Your task to perform on an android device: Go to Reddit.com Image 0: 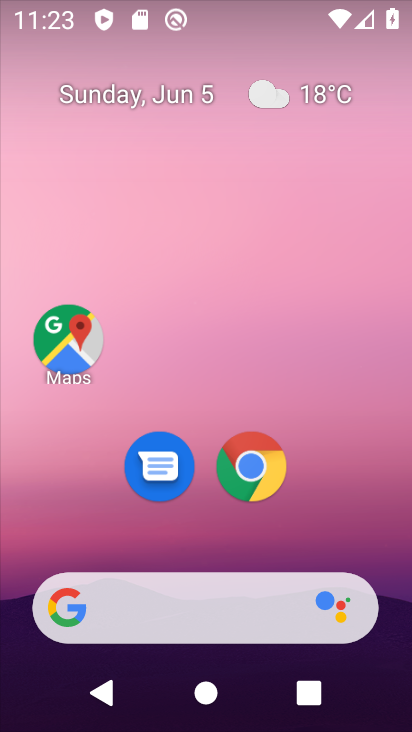
Step 0: drag from (339, 511) to (323, 183)
Your task to perform on an android device: Go to Reddit.com Image 1: 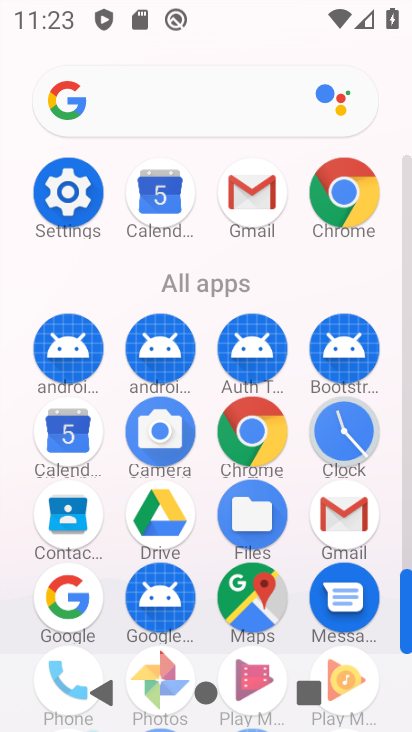
Step 1: click (248, 420)
Your task to perform on an android device: Go to Reddit.com Image 2: 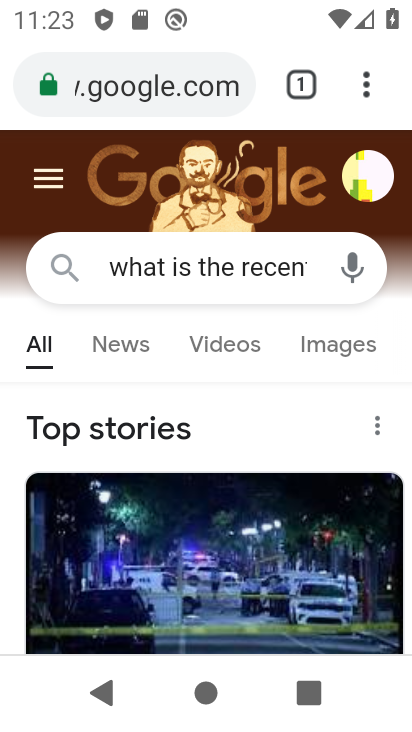
Step 2: click (185, 84)
Your task to perform on an android device: Go to Reddit.com Image 3: 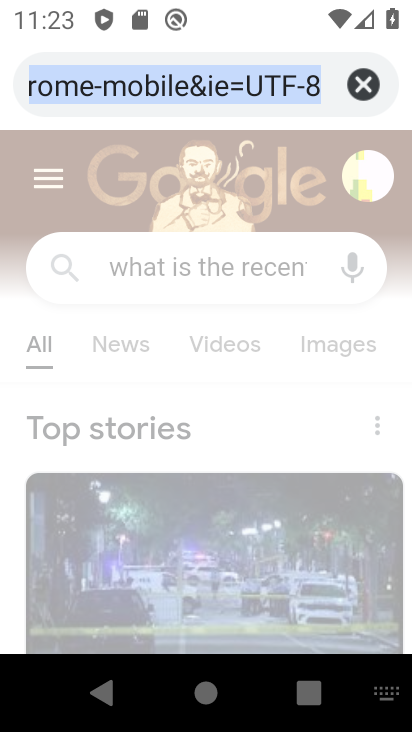
Step 3: click (370, 78)
Your task to perform on an android device: Go to Reddit.com Image 4: 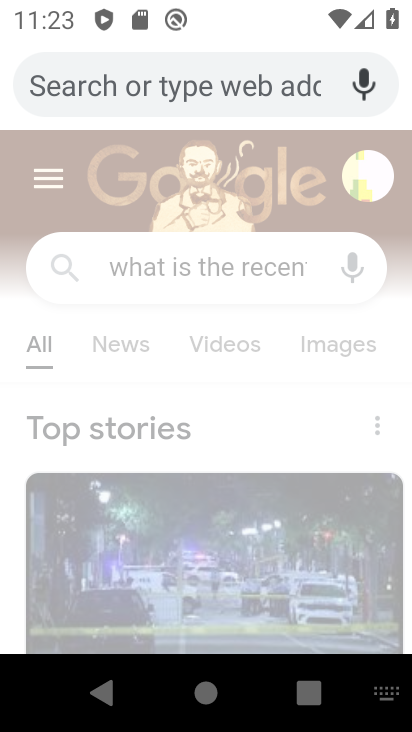
Step 4: type "reddit .com"
Your task to perform on an android device: Go to Reddit.com Image 5: 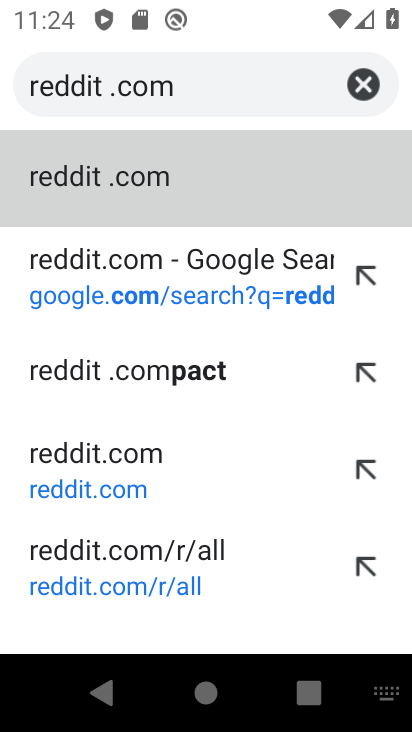
Step 5: click (126, 182)
Your task to perform on an android device: Go to Reddit.com Image 6: 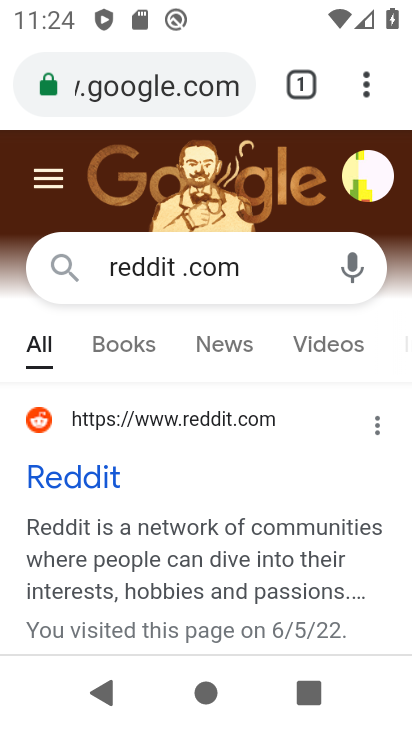
Step 6: click (111, 476)
Your task to perform on an android device: Go to Reddit.com Image 7: 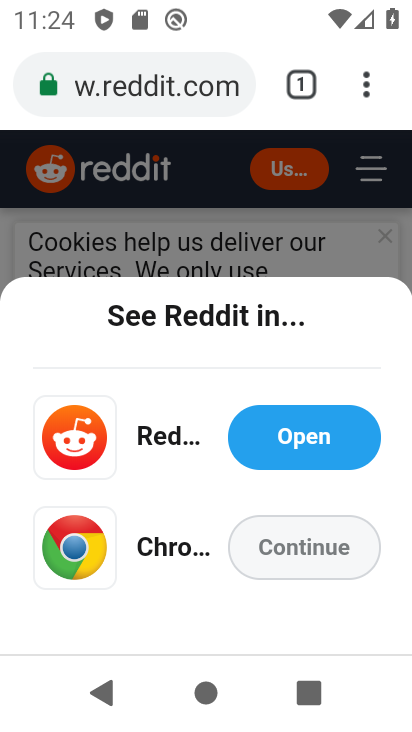
Step 7: task complete